Your task to perform on an android device: Do I have any events today? Image 0: 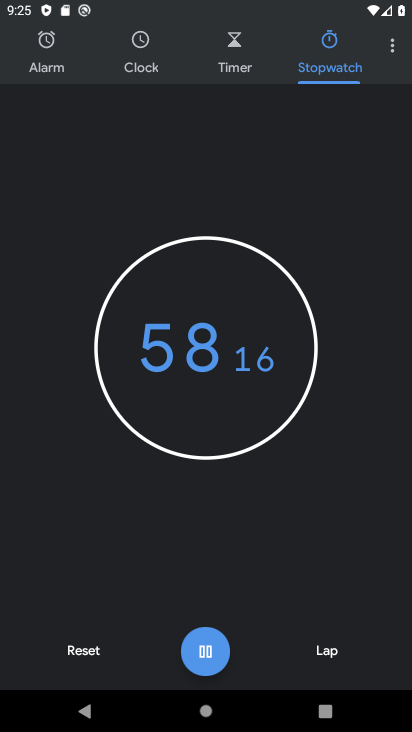
Step 0: press back button
Your task to perform on an android device: Do I have any events today? Image 1: 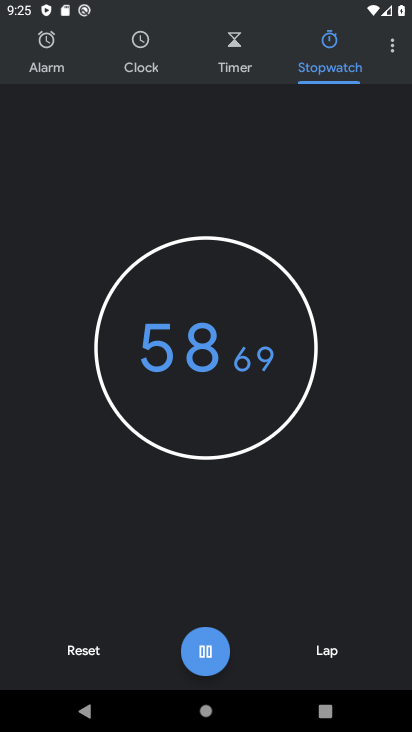
Step 1: press back button
Your task to perform on an android device: Do I have any events today? Image 2: 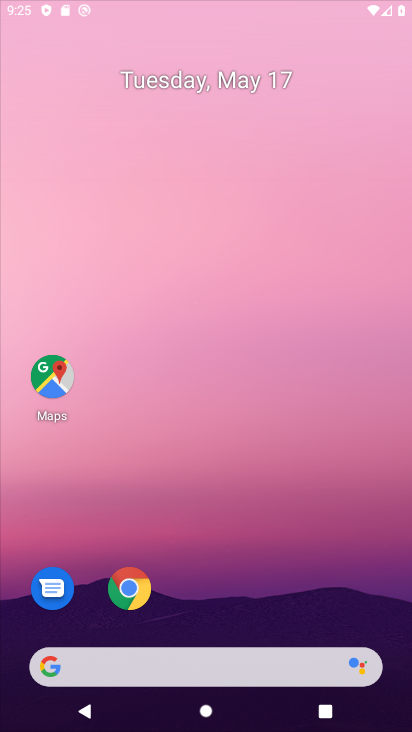
Step 2: press back button
Your task to perform on an android device: Do I have any events today? Image 3: 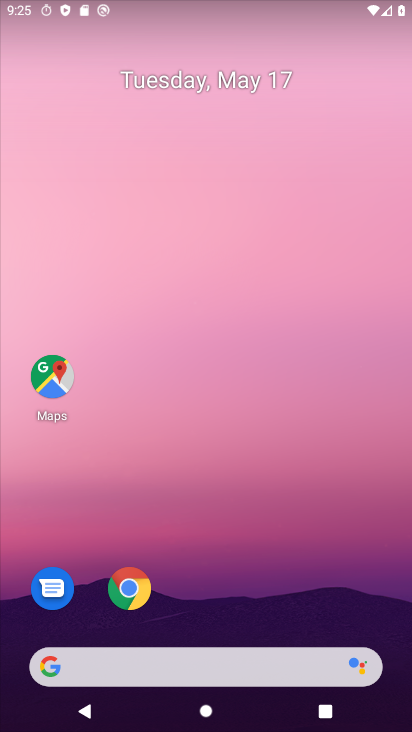
Step 3: drag from (281, 647) to (209, 134)
Your task to perform on an android device: Do I have any events today? Image 4: 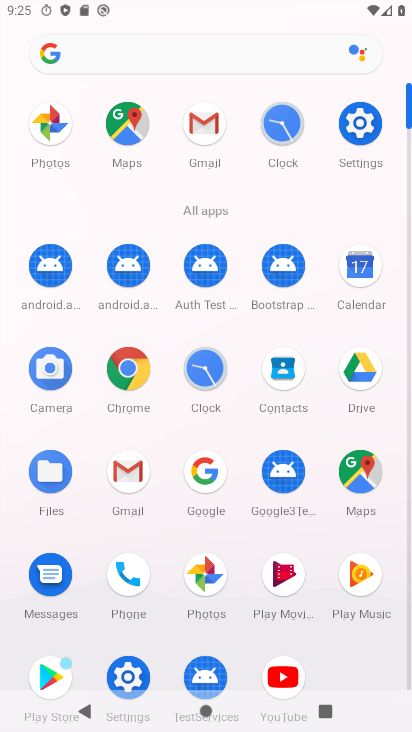
Step 4: press back button
Your task to perform on an android device: Do I have any events today? Image 5: 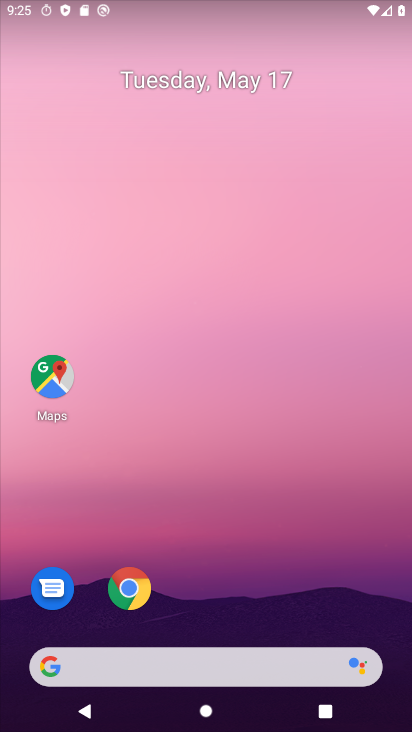
Step 5: drag from (259, 677) to (150, 83)
Your task to perform on an android device: Do I have any events today? Image 6: 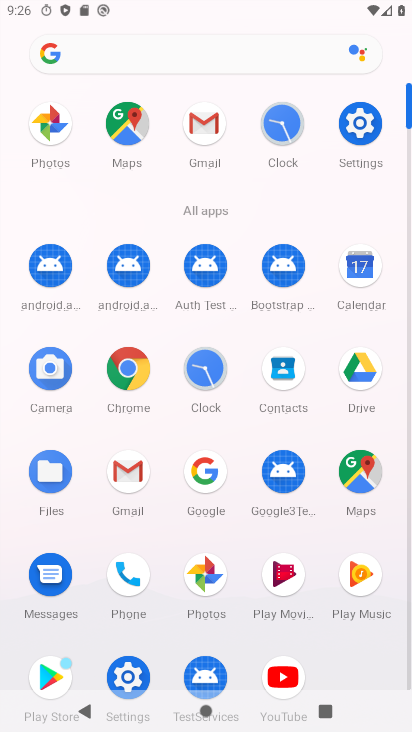
Step 6: click (361, 263)
Your task to perform on an android device: Do I have any events today? Image 7: 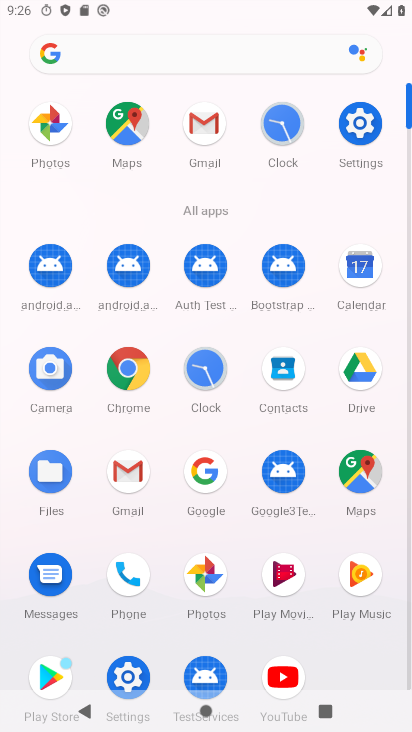
Step 7: click (361, 263)
Your task to perform on an android device: Do I have any events today? Image 8: 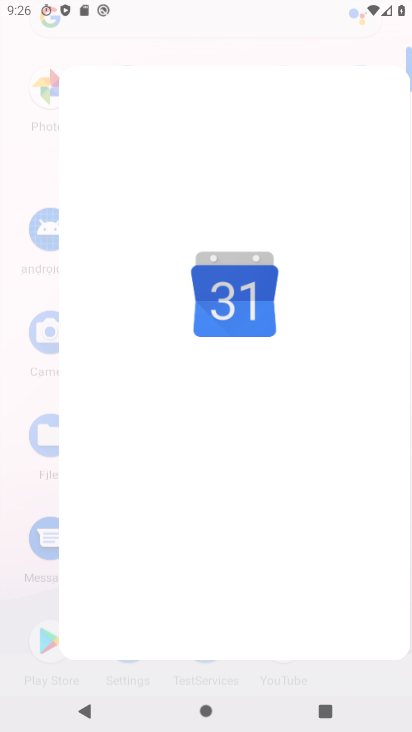
Step 8: click (361, 263)
Your task to perform on an android device: Do I have any events today? Image 9: 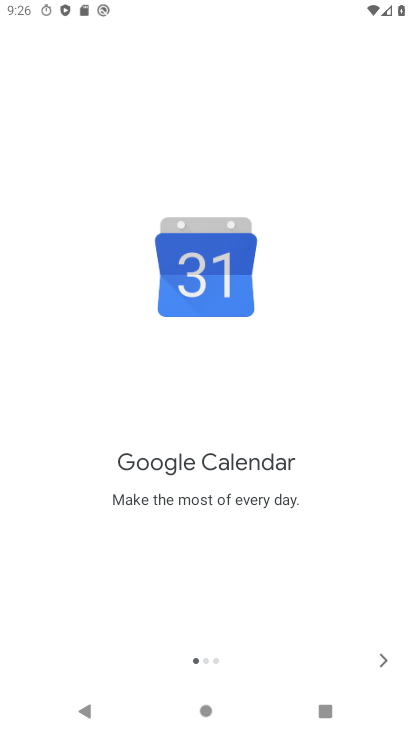
Step 9: click (385, 659)
Your task to perform on an android device: Do I have any events today? Image 10: 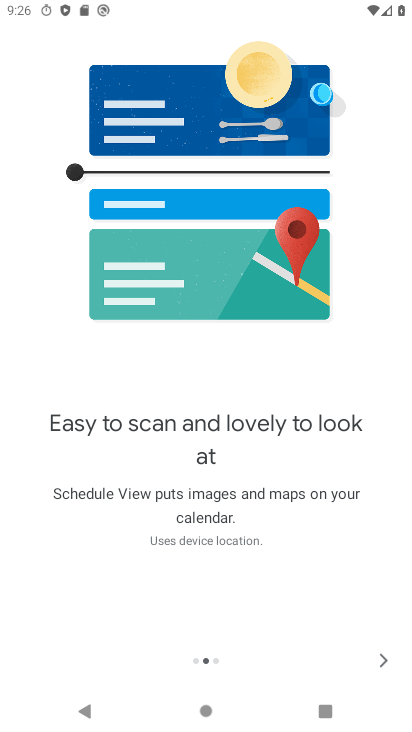
Step 10: click (371, 653)
Your task to perform on an android device: Do I have any events today? Image 11: 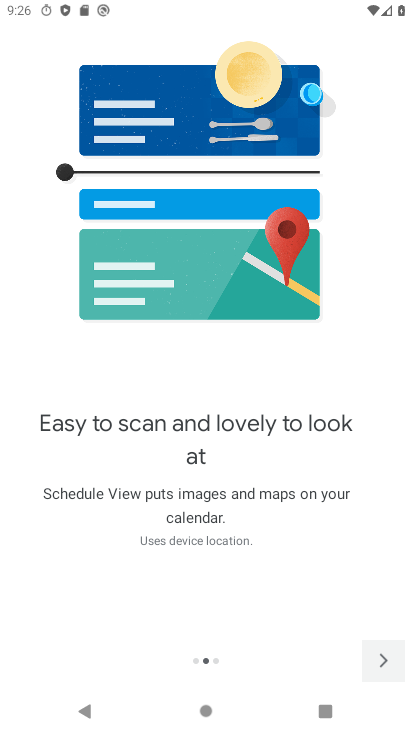
Step 11: click (371, 653)
Your task to perform on an android device: Do I have any events today? Image 12: 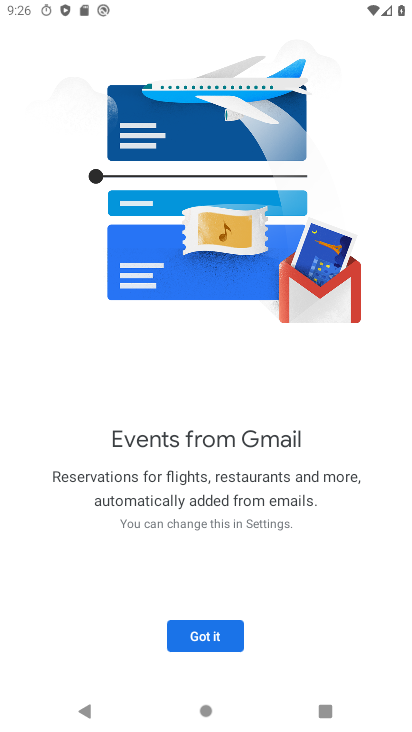
Step 12: click (197, 632)
Your task to perform on an android device: Do I have any events today? Image 13: 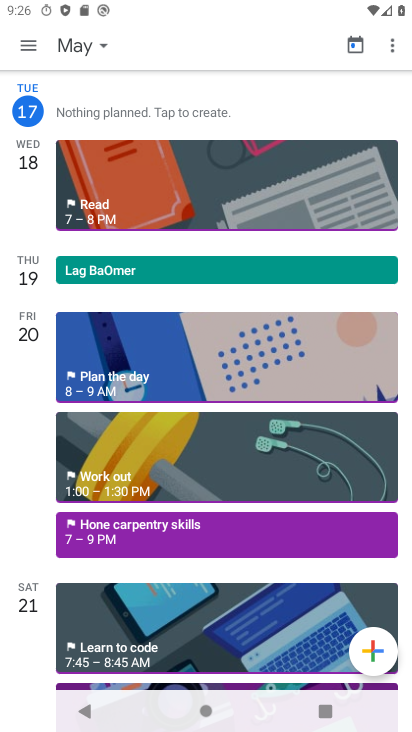
Step 13: click (93, 176)
Your task to perform on an android device: Do I have any events today? Image 14: 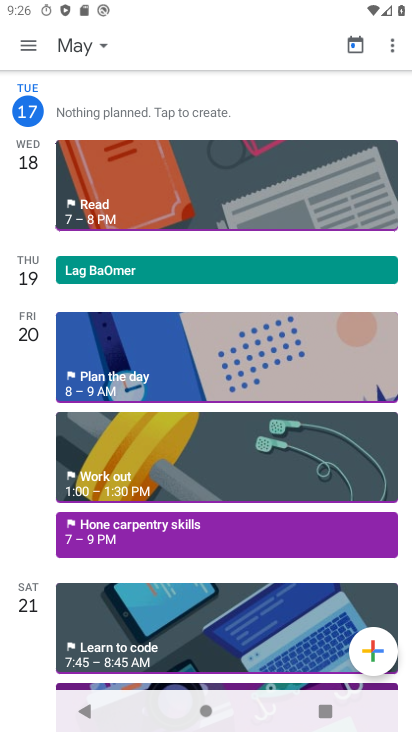
Step 14: click (94, 177)
Your task to perform on an android device: Do I have any events today? Image 15: 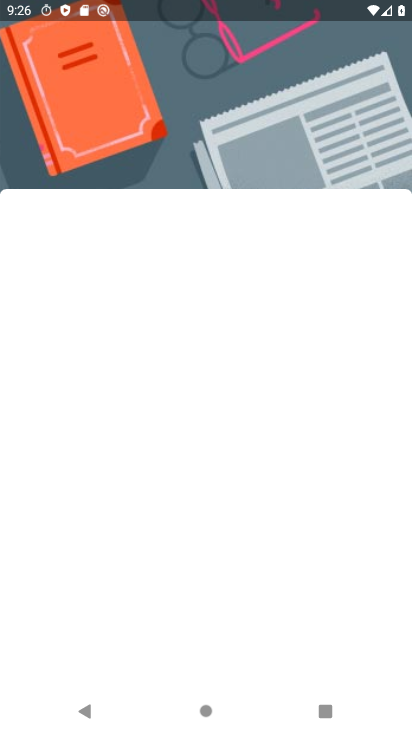
Step 15: click (95, 178)
Your task to perform on an android device: Do I have any events today? Image 16: 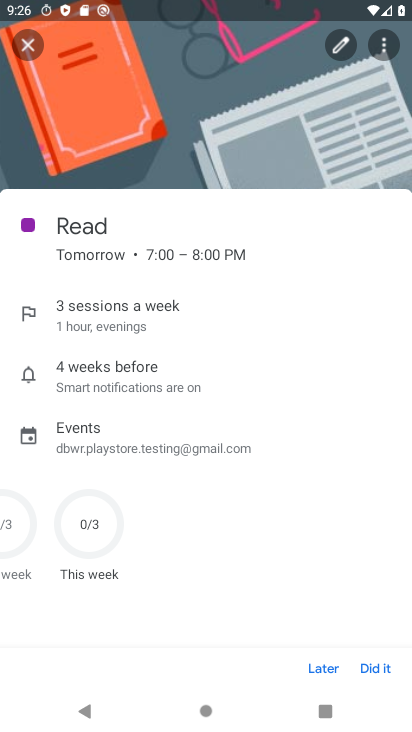
Step 16: click (95, 178)
Your task to perform on an android device: Do I have any events today? Image 17: 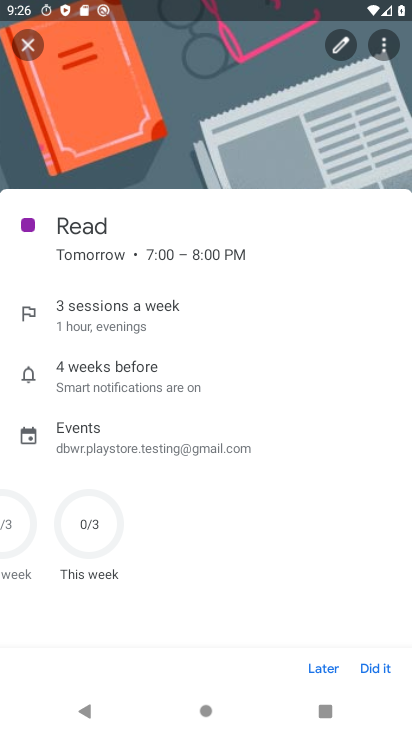
Step 17: task complete